Your task to perform on an android device: toggle notification dots Image 0: 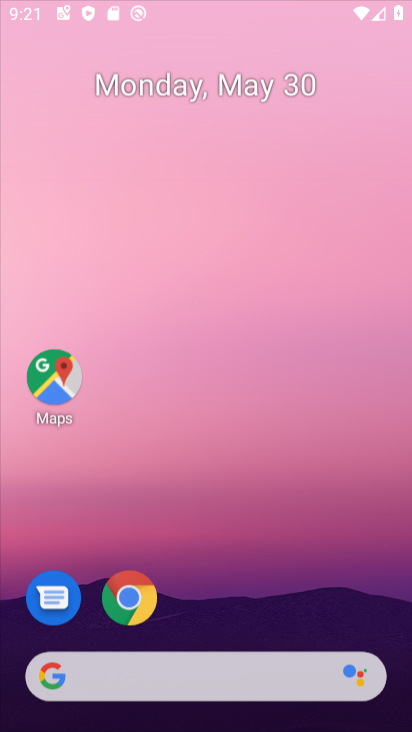
Step 0: press home button
Your task to perform on an android device: toggle notification dots Image 1: 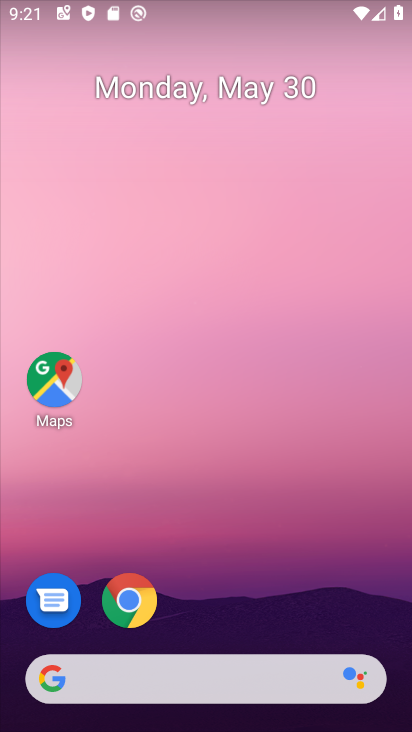
Step 1: drag from (215, 615) to (207, 31)
Your task to perform on an android device: toggle notification dots Image 2: 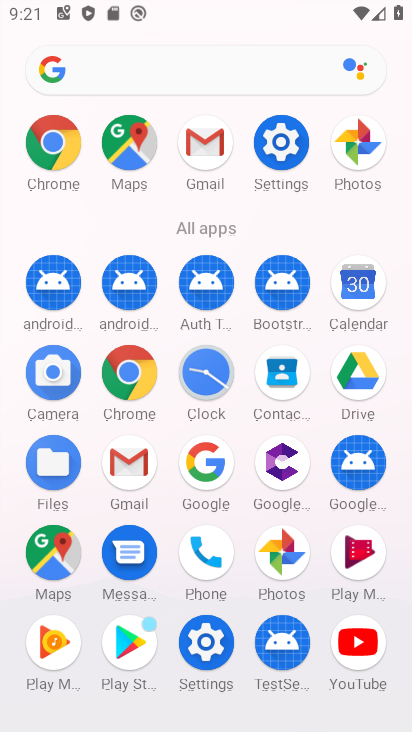
Step 2: click (284, 151)
Your task to perform on an android device: toggle notification dots Image 3: 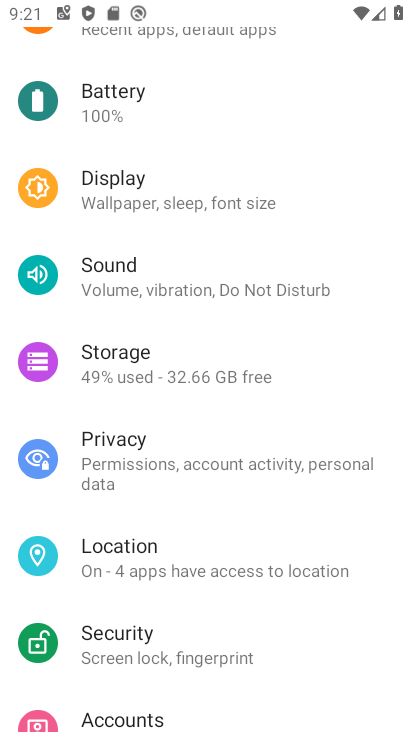
Step 3: drag from (172, 114) to (162, 382)
Your task to perform on an android device: toggle notification dots Image 4: 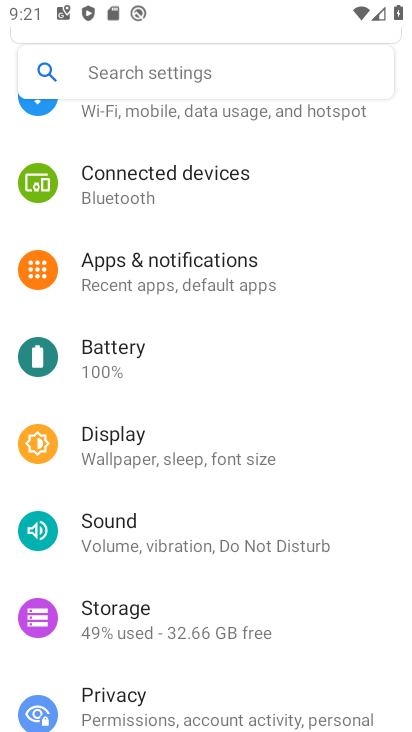
Step 4: click (160, 289)
Your task to perform on an android device: toggle notification dots Image 5: 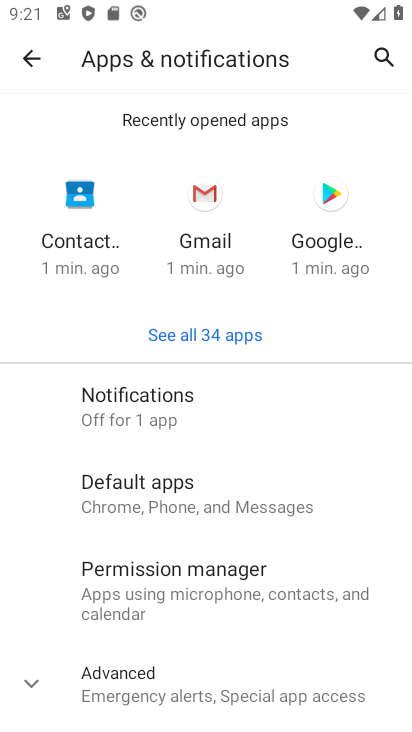
Step 5: click (123, 420)
Your task to perform on an android device: toggle notification dots Image 6: 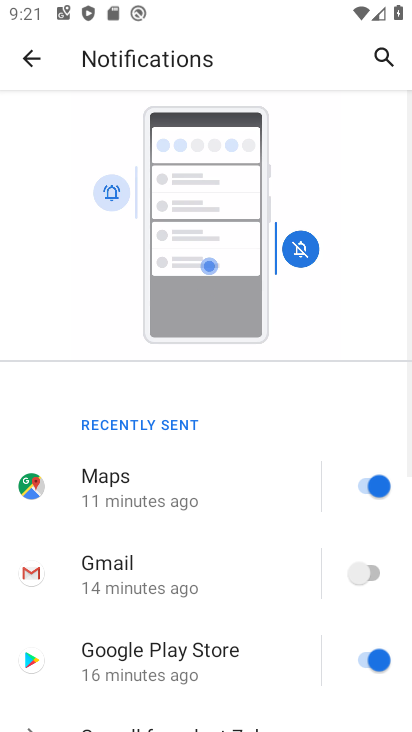
Step 6: drag from (255, 624) to (282, 63)
Your task to perform on an android device: toggle notification dots Image 7: 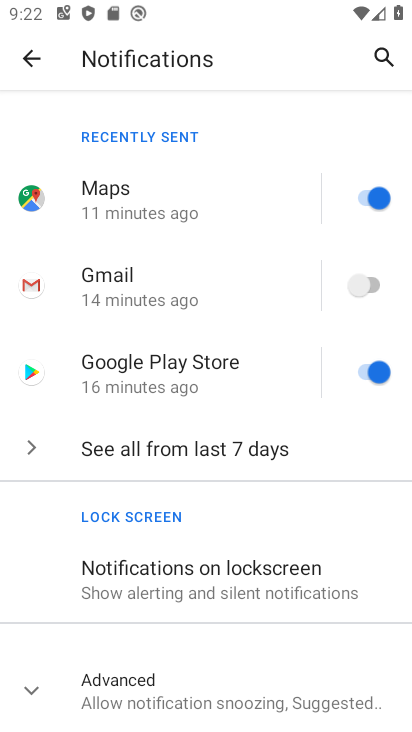
Step 7: click (111, 701)
Your task to perform on an android device: toggle notification dots Image 8: 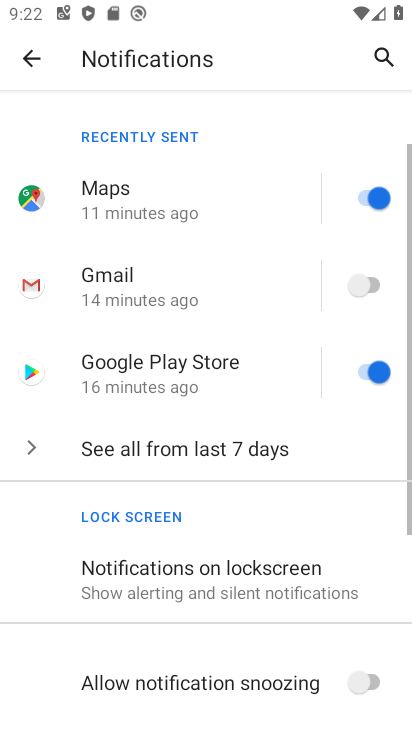
Step 8: drag from (225, 649) to (261, 240)
Your task to perform on an android device: toggle notification dots Image 9: 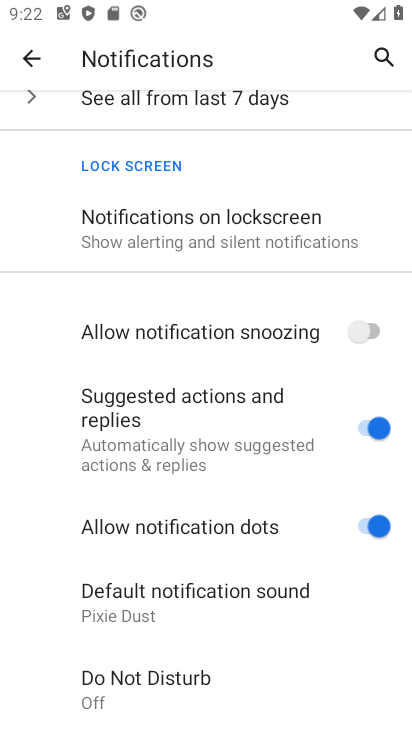
Step 9: click (385, 517)
Your task to perform on an android device: toggle notification dots Image 10: 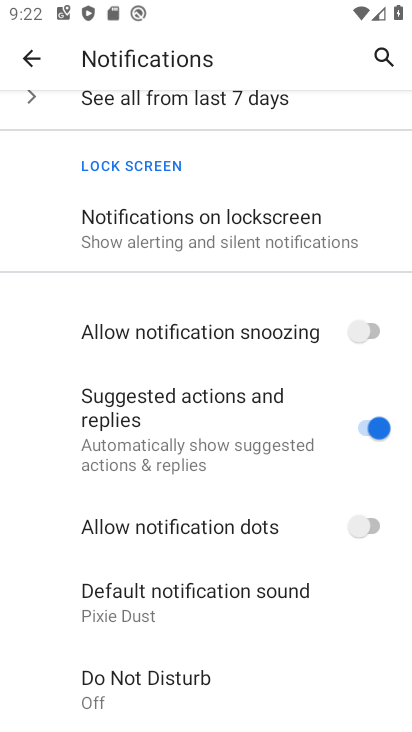
Step 10: task complete